Your task to perform on an android device: Open Maps and search for coffee Image 0: 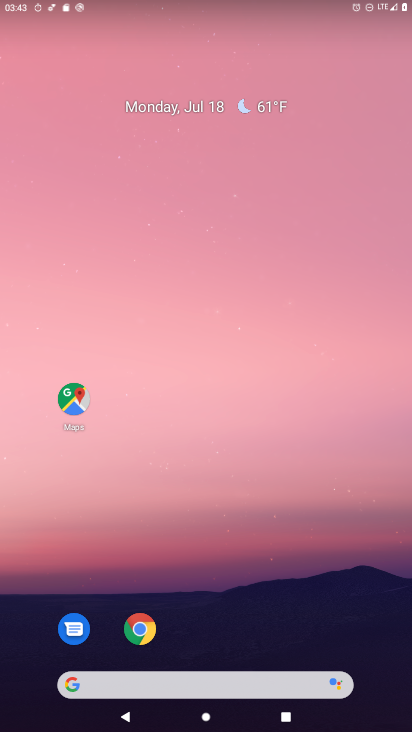
Step 0: click (72, 401)
Your task to perform on an android device: Open Maps and search for coffee Image 1: 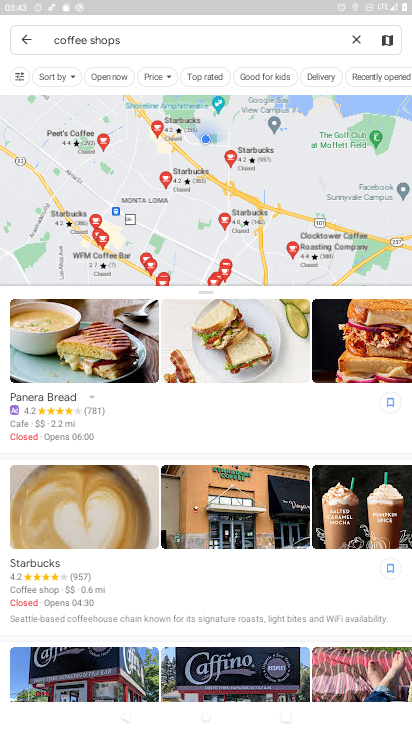
Step 1: click (358, 43)
Your task to perform on an android device: Open Maps and search for coffee Image 2: 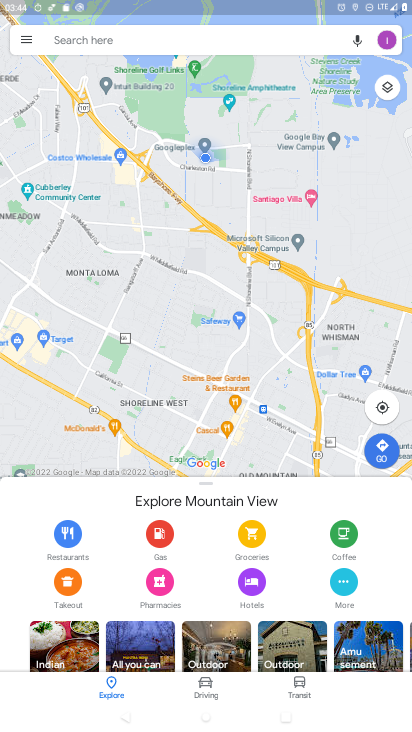
Step 2: click (203, 46)
Your task to perform on an android device: Open Maps and search for coffee Image 3: 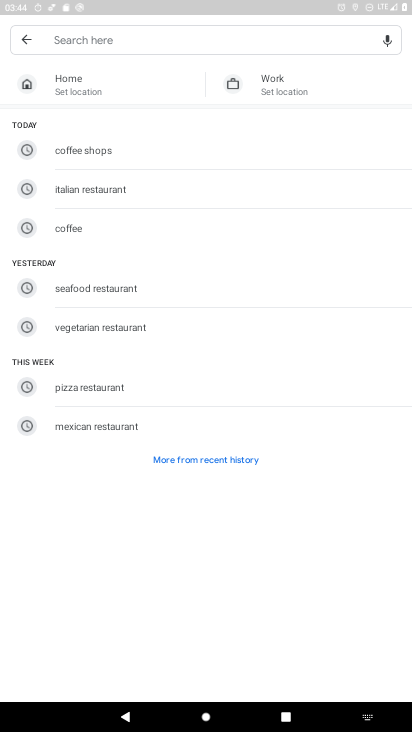
Step 3: type "coffee"
Your task to perform on an android device: Open Maps and search for coffee Image 4: 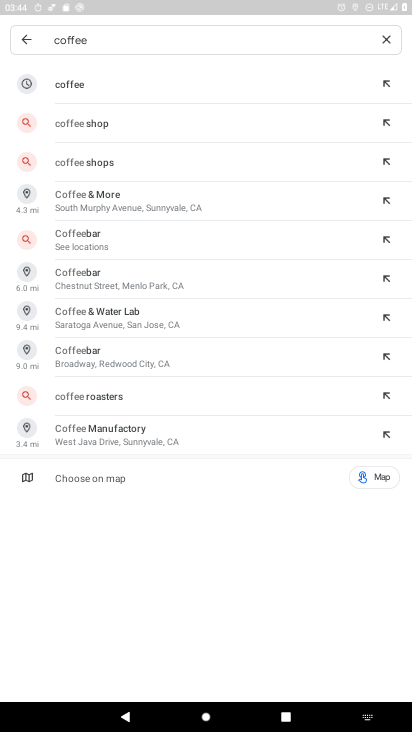
Step 4: click (75, 86)
Your task to perform on an android device: Open Maps and search for coffee Image 5: 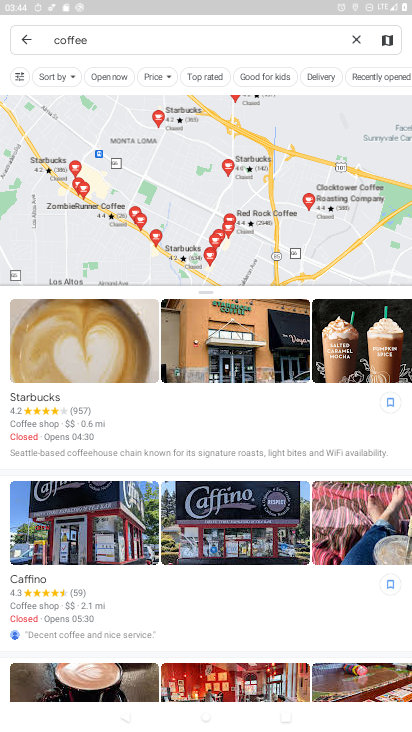
Step 5: task complete